Your task to perform on an android device: Check the news Image 0: 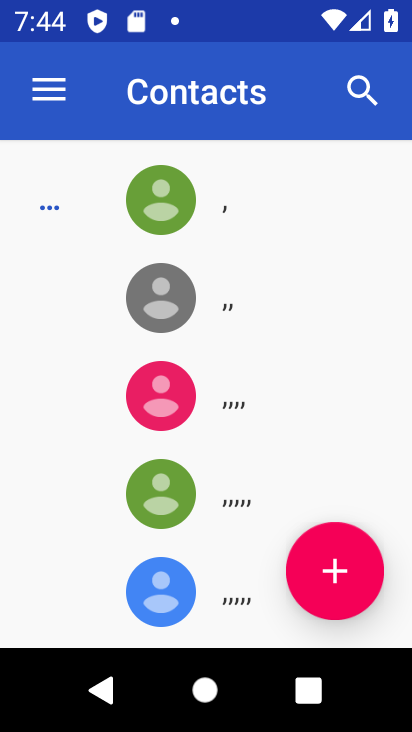
Step 0: press home button
Your task to perform on an android device: Check the news Image 1: 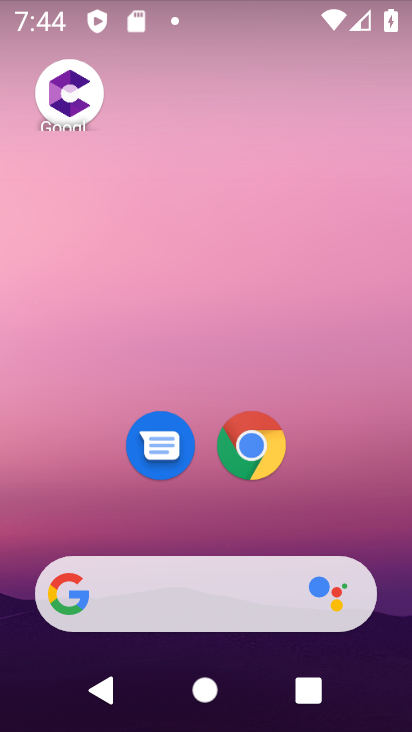
Step 1: drag from (277, 529) to (337, 193)
Your task to perform on an android device: Check the news Image 2: 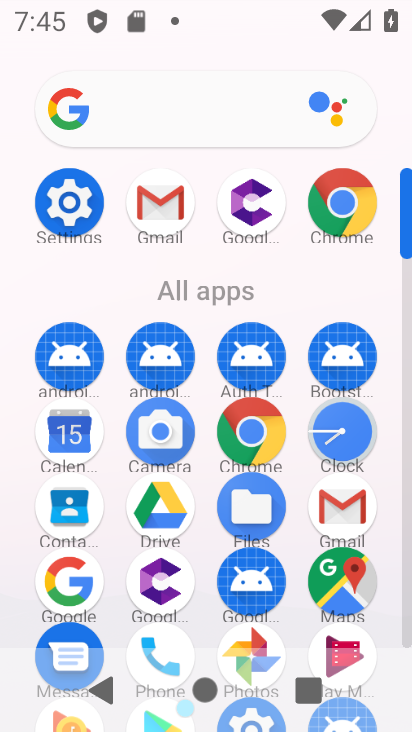
Step 2: click (80, 582)
Your task to perform on an android device: Check the news Image 3: 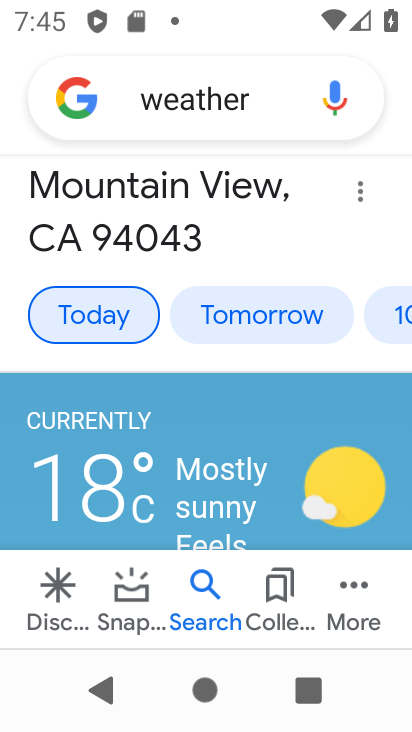
Step 3: click (296, 108)
Your task to perform on an android device: Check the news Image 4: 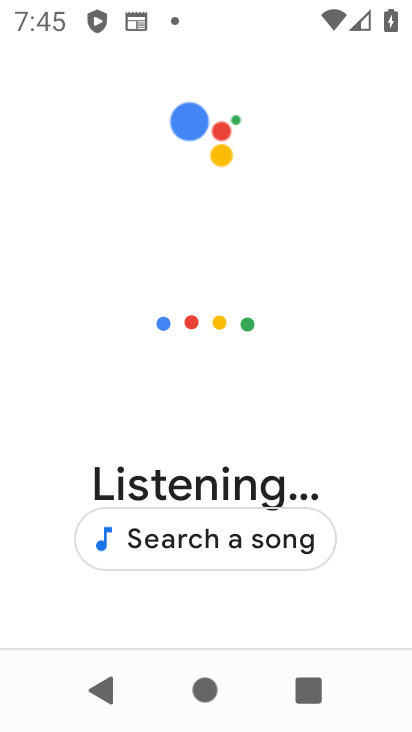
Step 4: press back button
Your task to perform on an android device: Check the news Image 5: 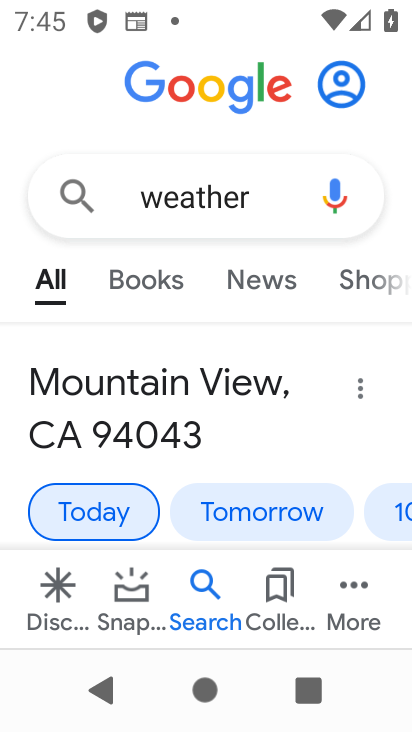
Step 5: click (240, 206)
Your task to perform on an android device: Check the news Image 6: 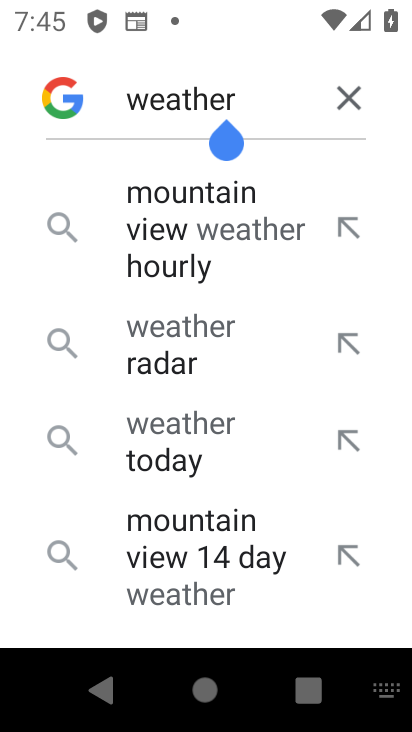
Step 6: click (355, 100)
Your task to perform on an android device: Check the news Image 7: 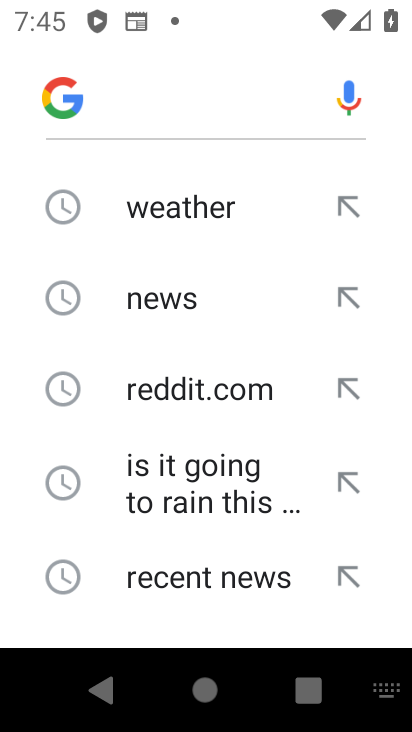
Step 7: click (209, 302)
Your task to perform on an android device: Check the news Image 8: 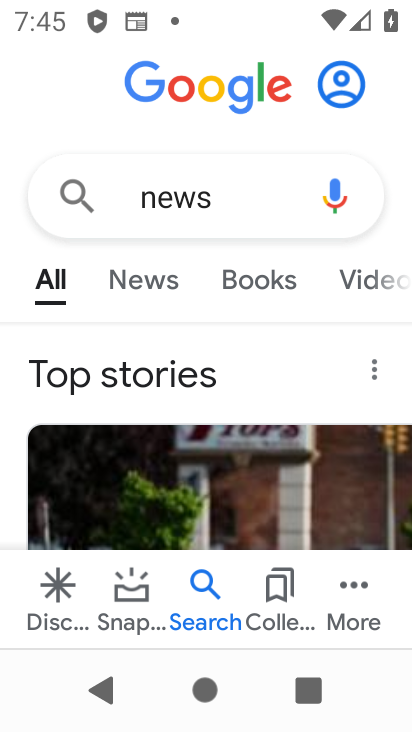
Step 8: click (169, 281)
Your task to perform on an android device: Check the news Image 9: 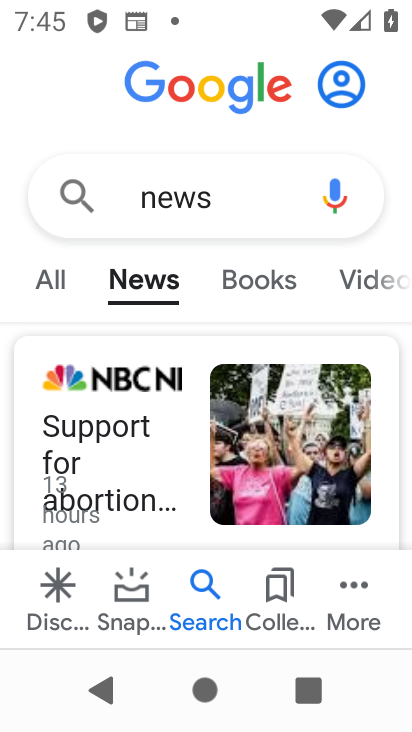
Step 9: drag from (234, 333) to (277, 176)
Your task to perform on an android device: Check the news Image 10: 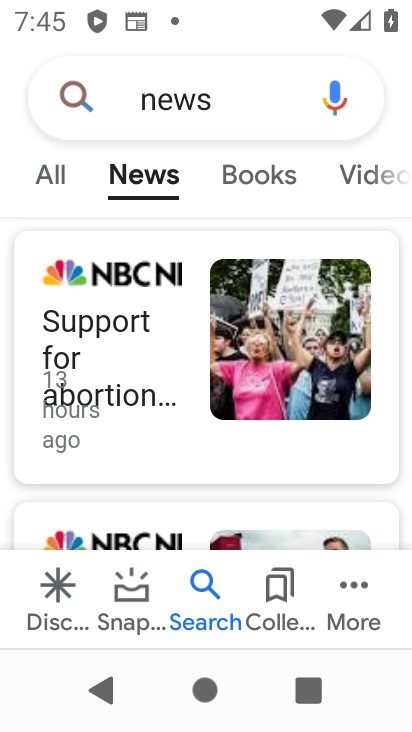
Step 10: click (294, 116)
Your task to perform on an android device: Check the news Image 11: 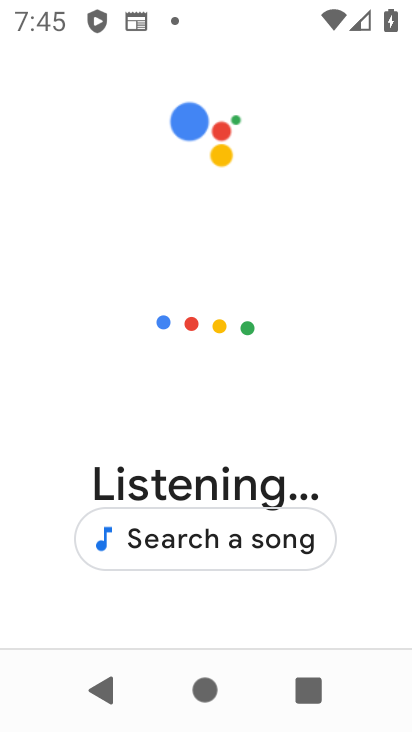
Step 11: task complete